Your task to perform on an android device: Open Google Maps Image 0: 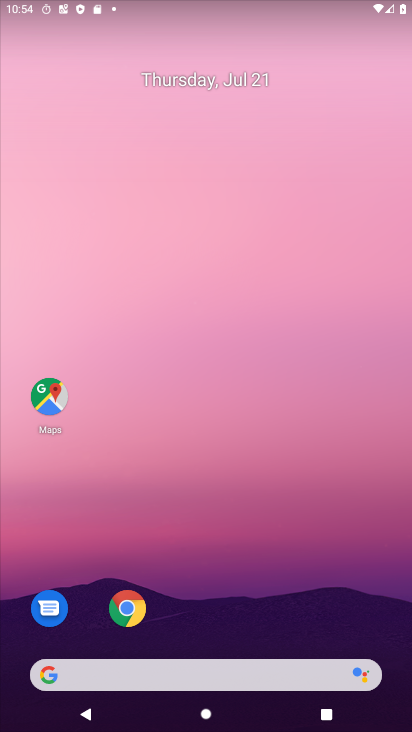
Step 0: click (46, 407)
Your task to perform on an android device: Open Google Maps Image 1: 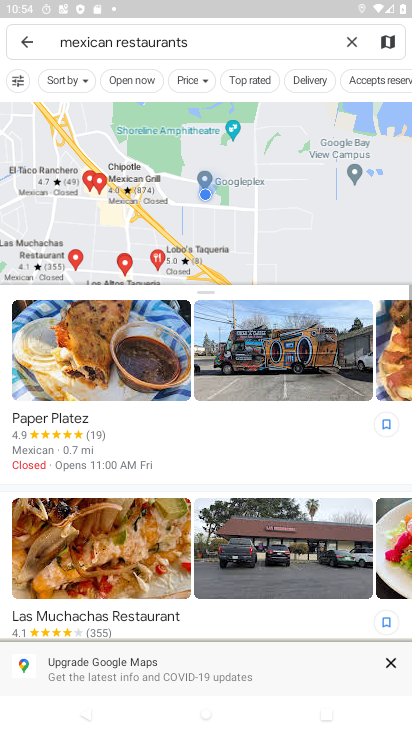
Step 1: task complete